Your task to perform on an android device: Find coffee shops on Maps Image 0: 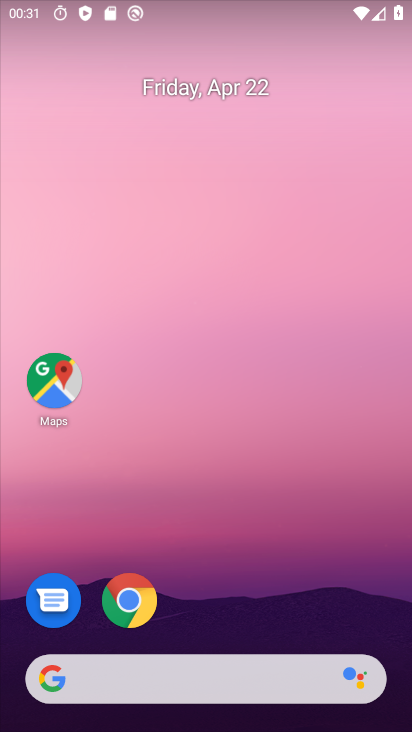
Step 0: drag from (193, 334) to (230, 106)
Your task to perform on an android device: Find coffee shops on Maps Image 1: 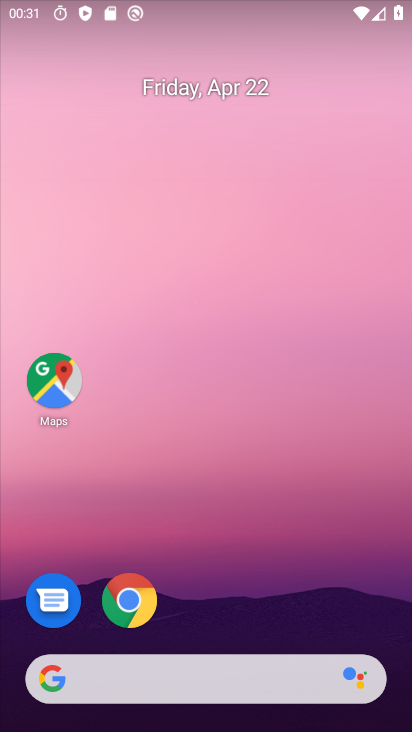
Step 1: click (64, 372)
Your task to perform on an android device: Find coffee shops on Maps Image 2: 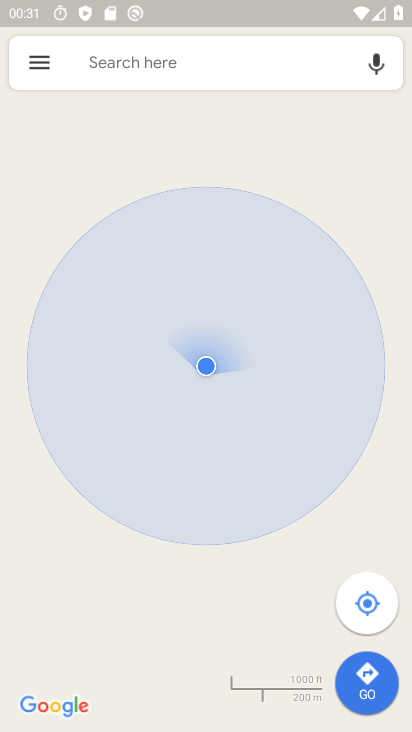
Step 2: click (144, 65)
Your task to perform on an android device: Find coffee shops on Maps Image 3: 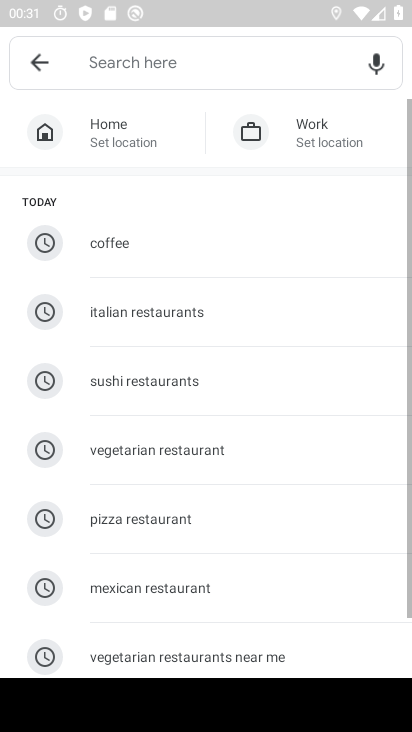
Step 3: type "coffee shops"
Your task to perform on an android device: Find coffee shops on Maps Image 4: 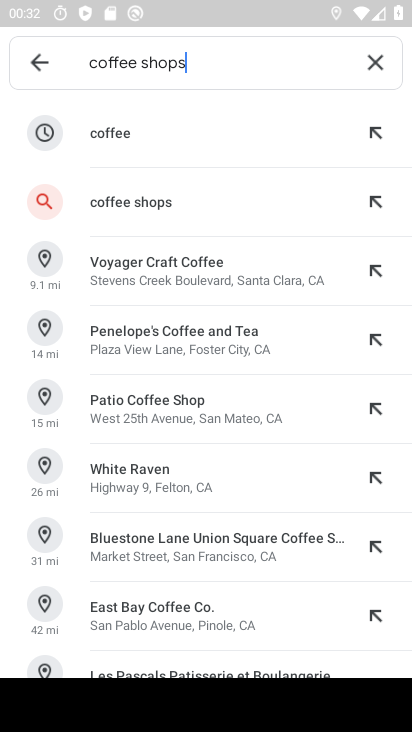
Step 4: click (182, 196)
Your task to perform on an android device: Find coffee shops on Maps Image 5: 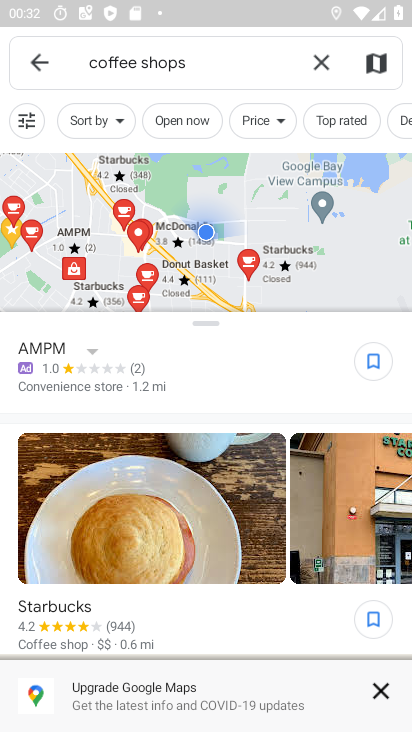
Step 5: task complete